Your task to perform on an android device: Open the calendar and show me this week's events? Image 0: 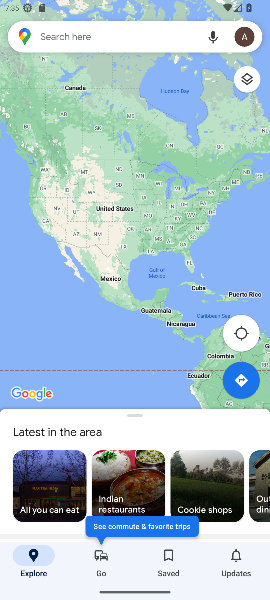
Step 0: press home button
Your task to perform on an android device: Open the calendar and show me this week's events? Image 1: 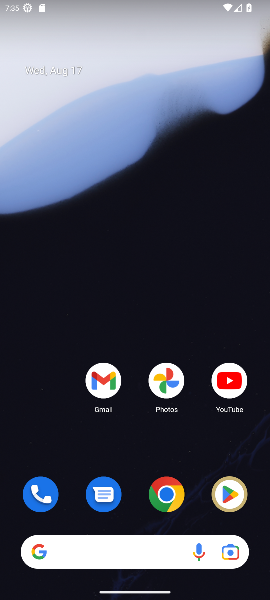
Step 1: drag from (87, 554) to (52, 75)
Your task to perform on an android device: Open the calendar and show me this week's events? Image 2: 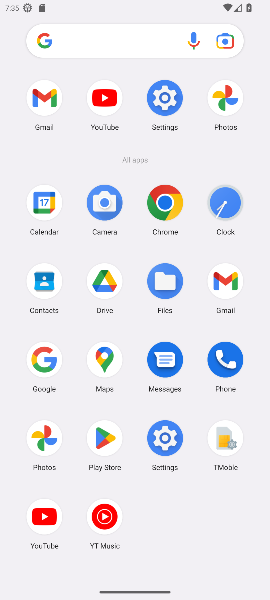
Step 2: click (39, 204)
Your task to perform on an android device: Open the calendar and show me this week's events? Image 3: 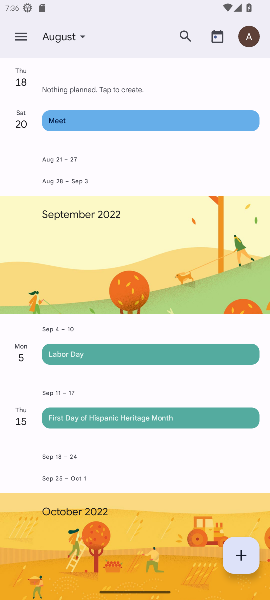
Step 3: click (68, 40)
Your task to perform on an android device: Open the calendar and show me this week's events? Image 4: 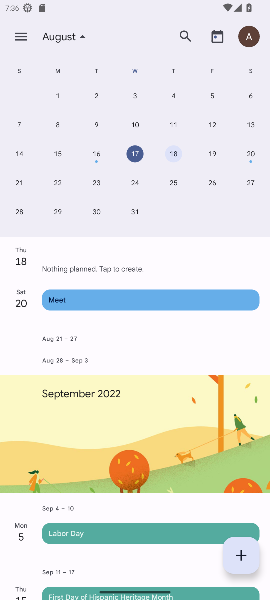
Step 4: click (169, 153)
Your task to perform on an android device: Open the calendar and show me this week's events? Image 5: 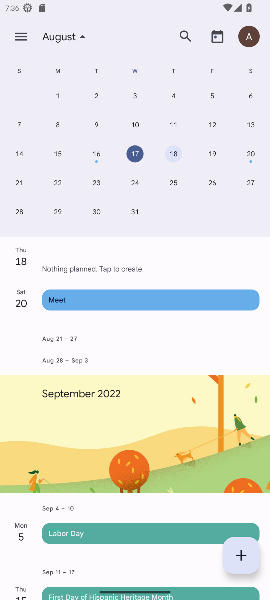
Step 5: task complete